Your task to perform on an android device: turn on data saver in the chrome app Image 0: 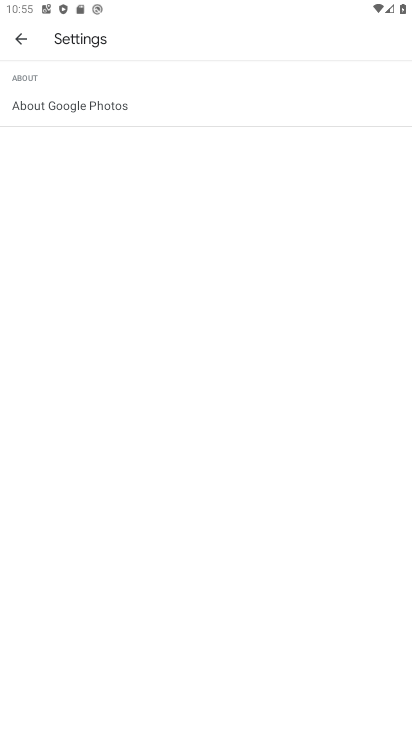
Step 0: press home button
Your task to perform on an android device: turn on data saver in the chrome app Image 1: 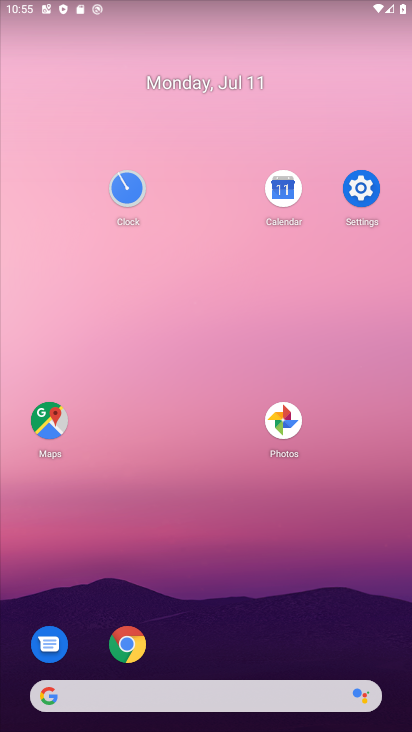
Step 1: click (138, 644)
Your task to perform on an android device: turn on data saver in the chrome app Image 2: 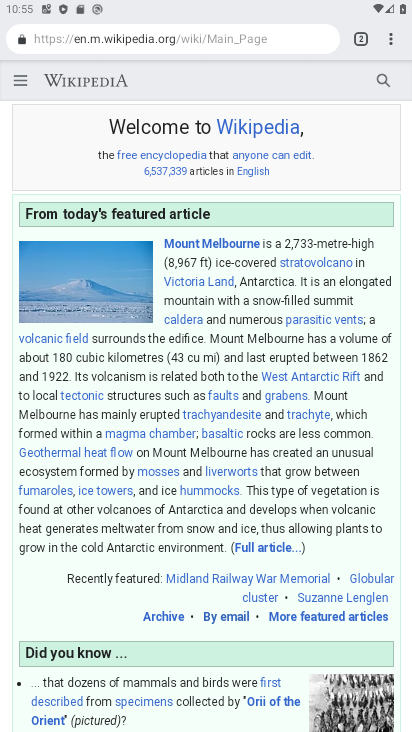
Step 2: click (389, 41)
Your task to perform on an android device: turn on data saver in the chrome app Image 3: 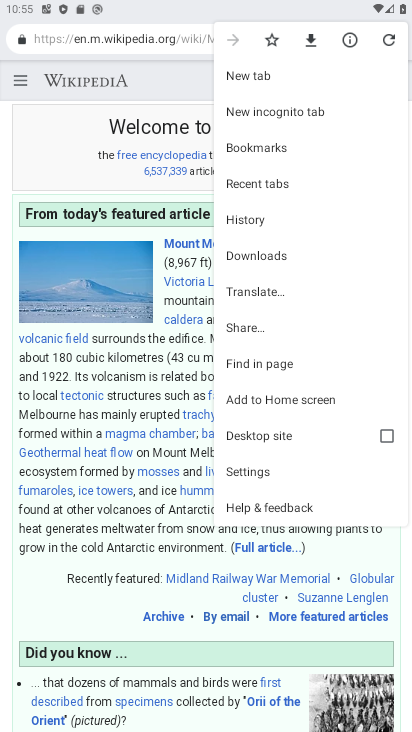
Step 3: click (260, 467)
Your task to perform on an android device: turn on data saver in the chrome app Image 4: 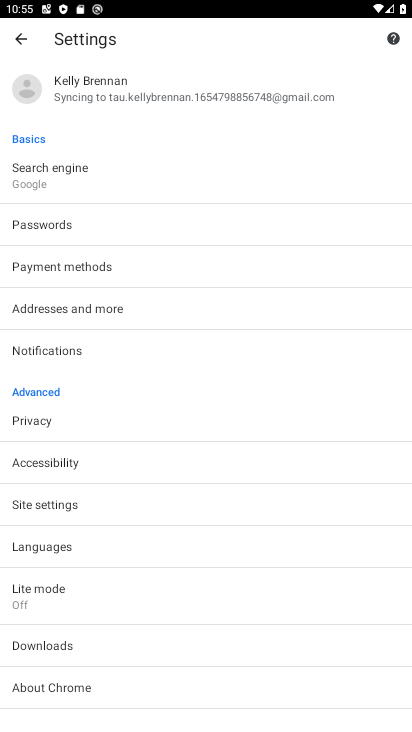
Step 4: click (123, 588)
Your task to perform on an android device: turn on data saver in the chrome app Image 5: 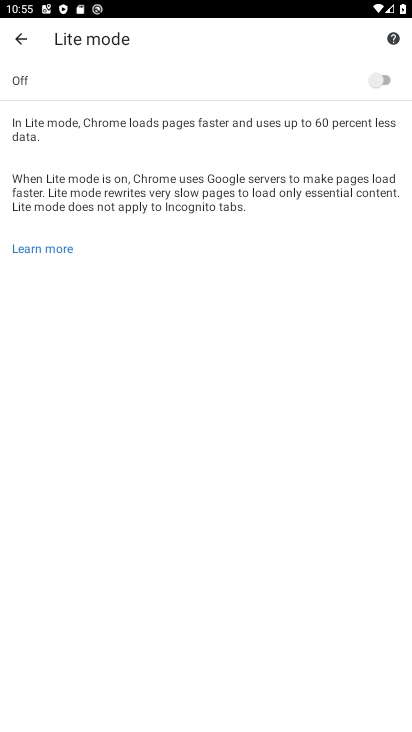
Step 5: click (389, 88)
Your task to perform on an android device: turn on data saver in the chrome app Image 6: 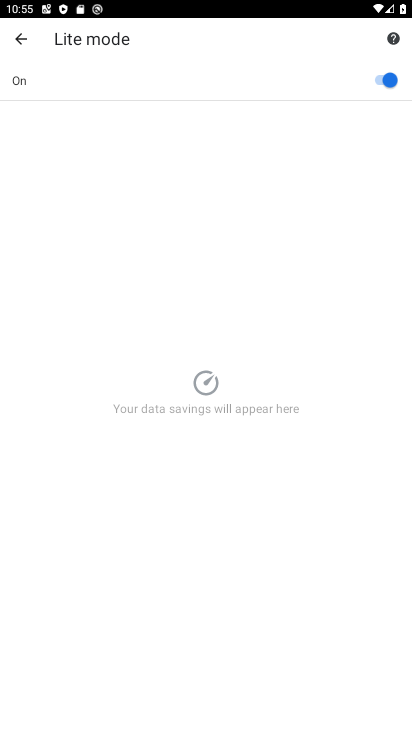
Step 6: task complete